Your task to perform on an android device: Do I have any events this weekend? Image 0: 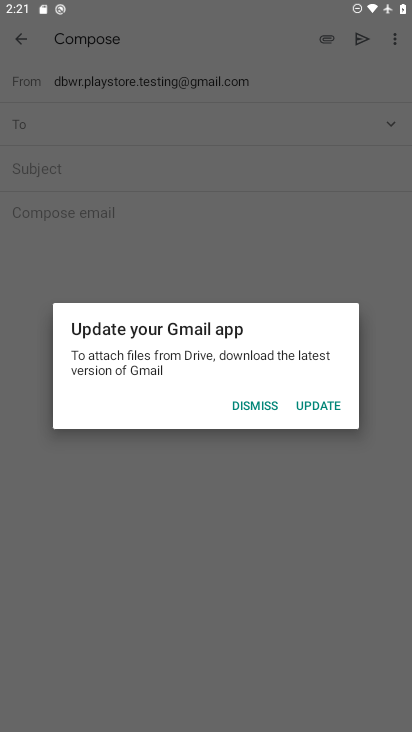
Step 0: press home button
Your task to perform on an android device: Do I have any events this weekend? Image 1: 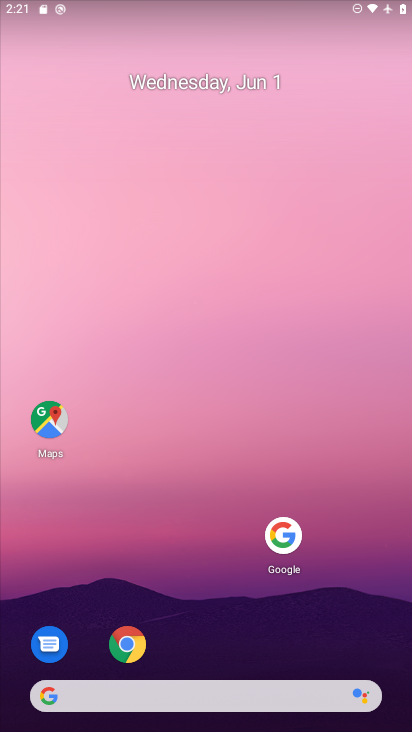
Step 1: drag from (198, 698) to (253, 128)
Your task to perform on an android device: Do I have any events this weekend? Image 2: 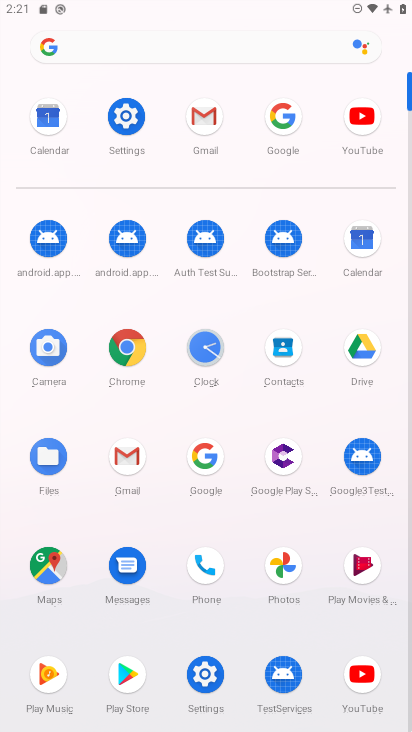
Step 2: click (356, 242)
Your task to perform on an android device: Do I have any events this weekend? Image 3: 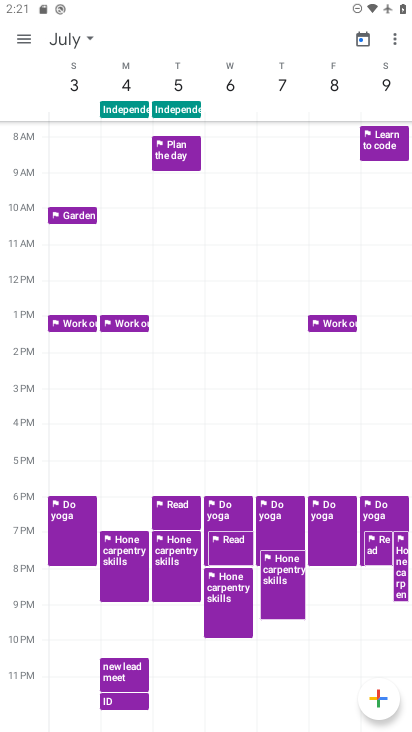
Step 3: click (68, 43)
Your task to perform on an android device: Do I have any events this weekend? Image 4: 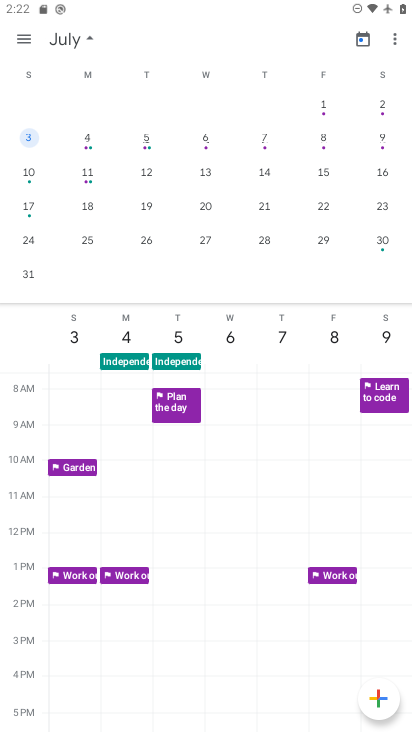
Step 4: drag from (75, 187) to (381, 220)
Your task to perform on an android device: Do I have any events this weekend? Image 5: 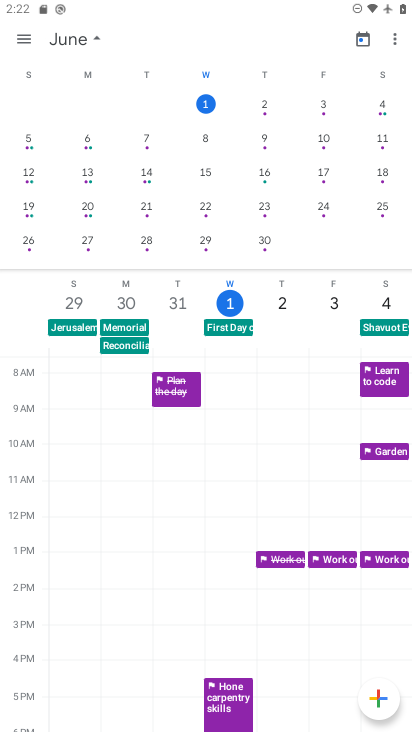
Step 5: click (383, 110)
Your task to perform on an android device: Do I have any events this weekend? Image 6: 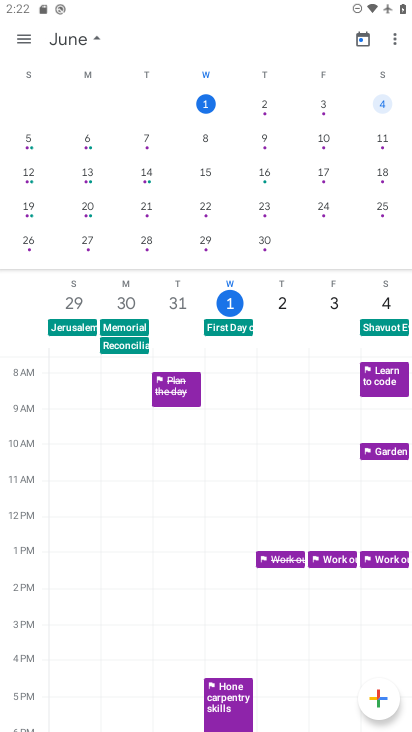
Step 6: click (26, 43)
Your task to perform on an android device: Do I have any events this weekend? Image 7: 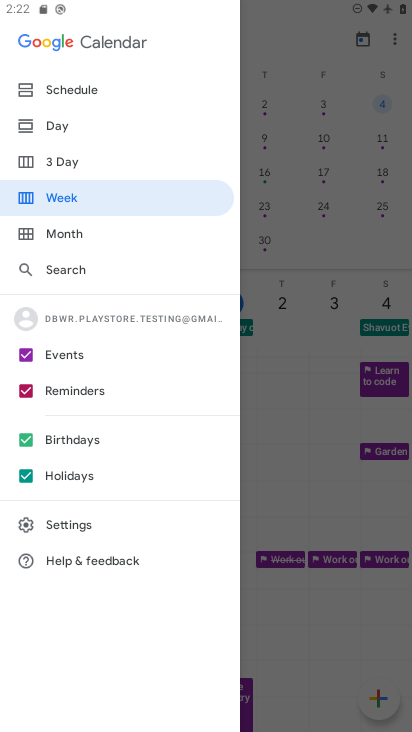
Step 7: click (67, 122)
Your task to perform on an android device: Do I have any events this weekend? Image 8: 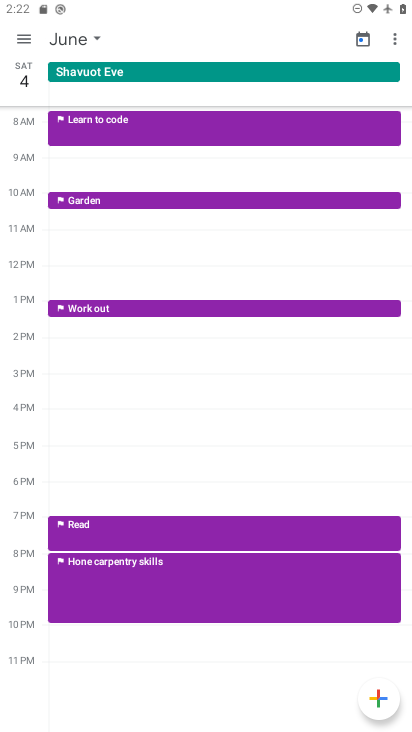
Step 8: click (21, 39)
Your task to perform on an android device: Do I have any events this weekend? Image 9: 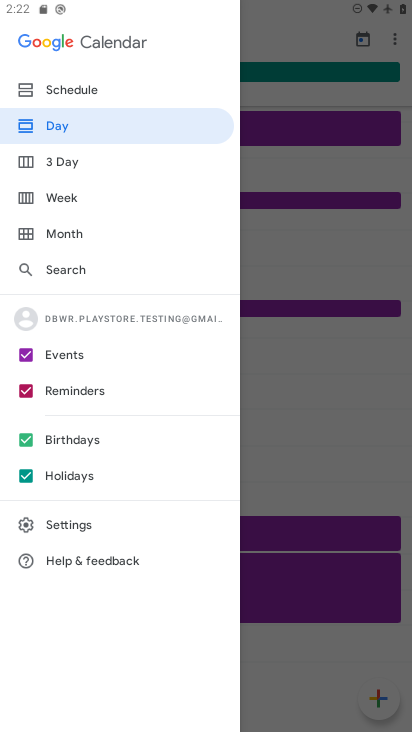
Step 9: click (83, 92)
Your task to perform on an android device: Do I have any events this weekend? Image 10: 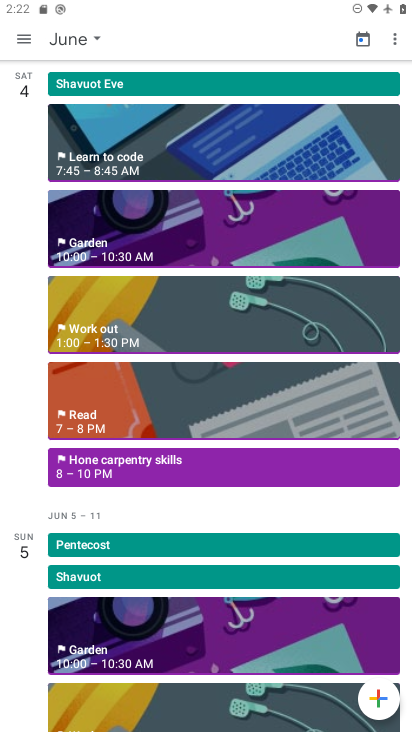
Step 10: click (149, 241)
Your task to perform on an android device: Do I have any events this weekend? Image 11: 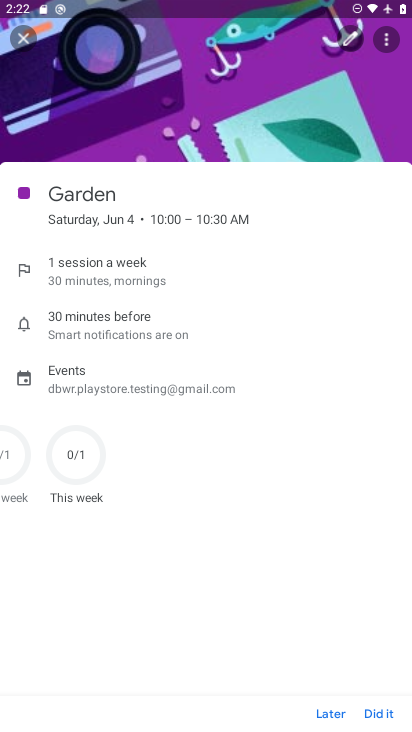
Step 11: task complete